Your task to perform on an android device: toggle translation in the chrome app Image 0: 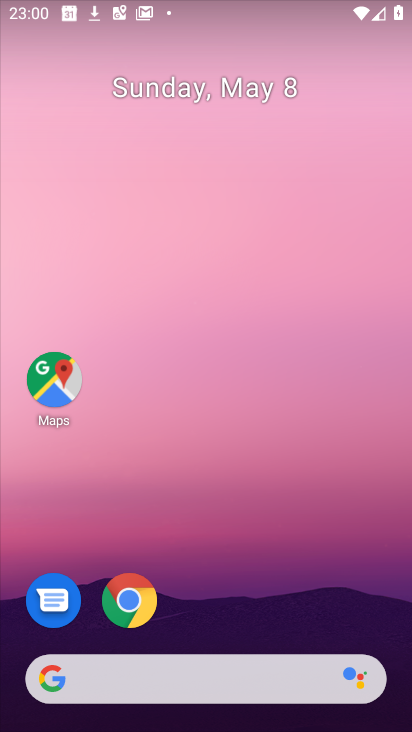
Step 0: drag from (269, 707) to (247, 316)
Your task to perform on an android device: toggle translation in the chrome app Image 1: 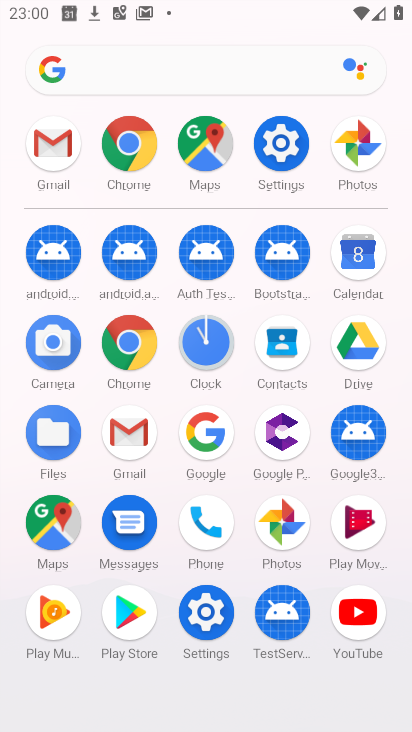
Step 1: click (131, 344)
Your task to perform on an android device: toggle translation in the chrome app Image 2: 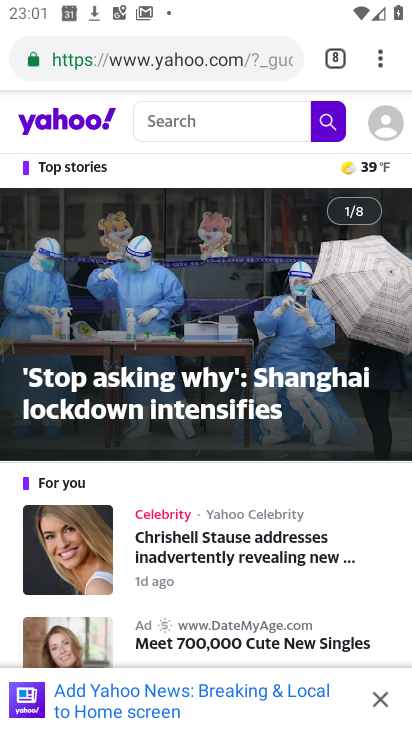
Step 2: click (387, 72)
Your task to perform on an android device: toggle translation in the chrome app Image 3: 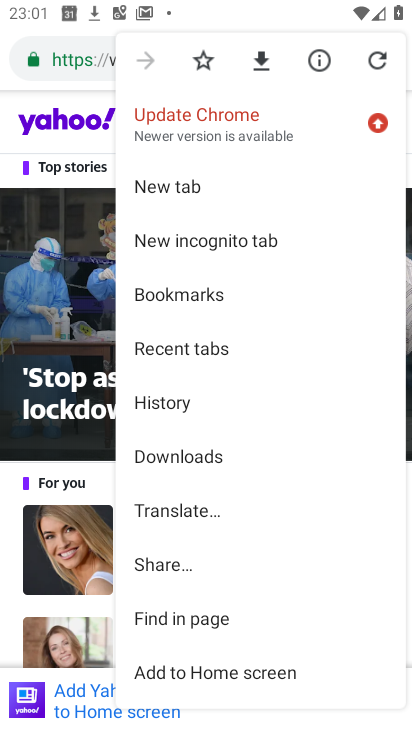
Step 3: drag from (171, 557) to (292, 357)
Your task to perform on an android device: toggle translation in the chrome app Image 4: 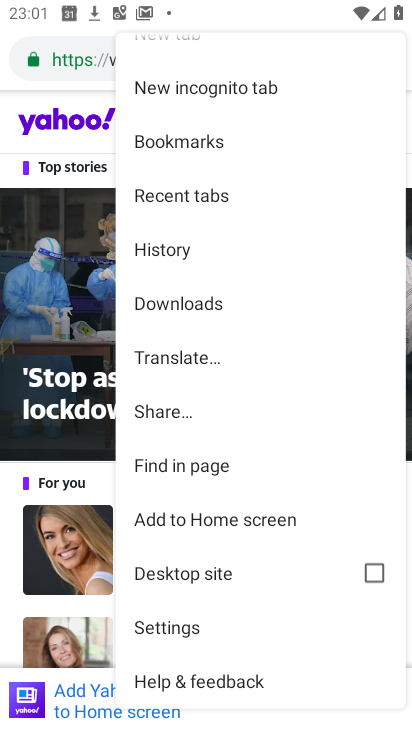
Step 4: click (211, 630)
Your task to perform on an android device: toggle translation in the chrome app Image 5: 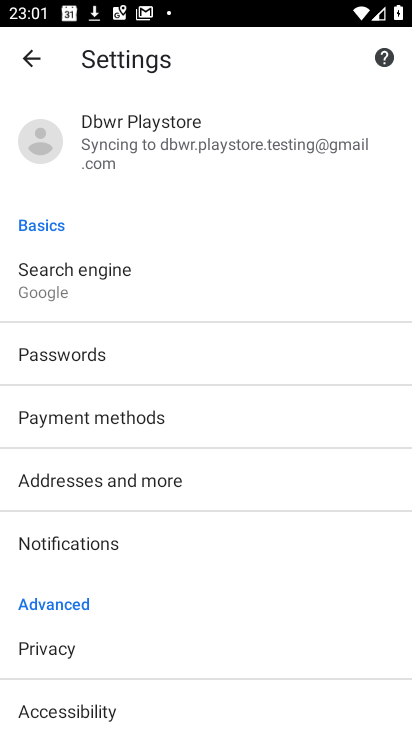
Step 5: drag from (151, 682) to (191, 536)
Your task to perform on an android device: toggle translation in the chrome app Image 6: 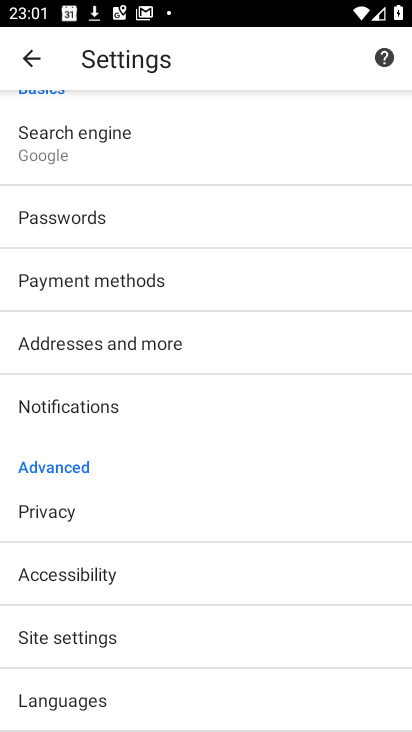
Step 6: click (84, 703)
Your task to perform on an android device: toggle translation in the chrome app Image 7: 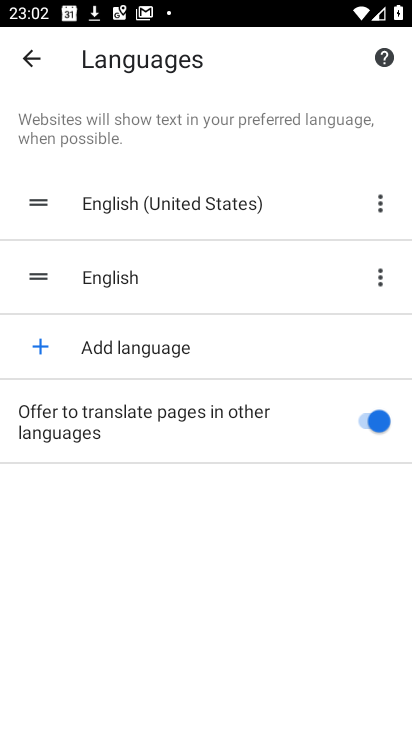
Step 7: task complete